Your task to perform on an android device: Show me recent news Image 0: 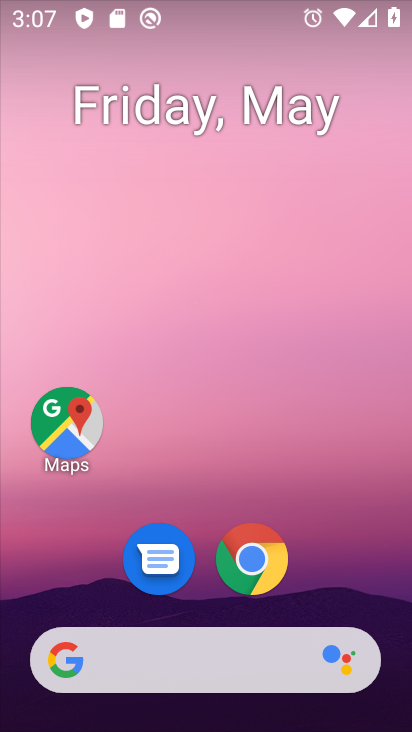
Step 0: drag from (361, 600) to (325, 156)
Your task to perform on an android device: Show me recent news Image 1: 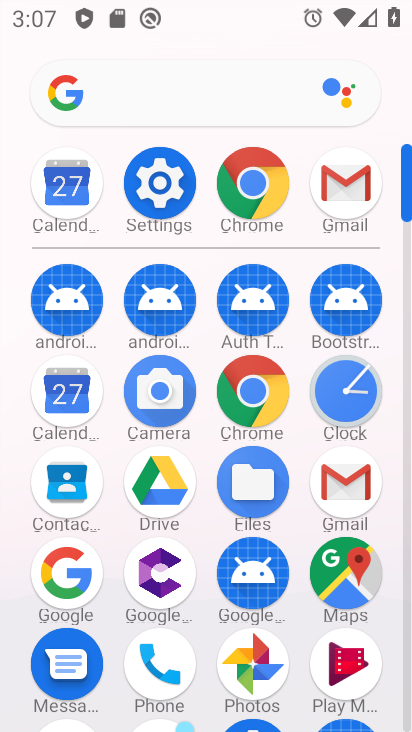
Step 1: click (202, 113)
Your task to perform on an android device: Show me recent news Image 2: 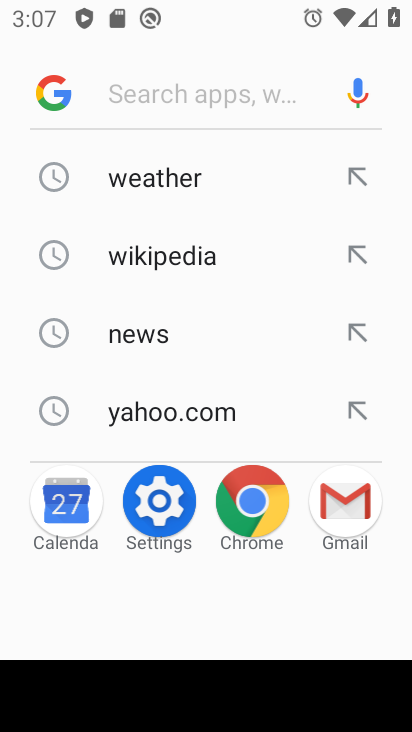
Step 2: click (181, 308)
Your task to perform on an android device: Show me recent news Image 3: 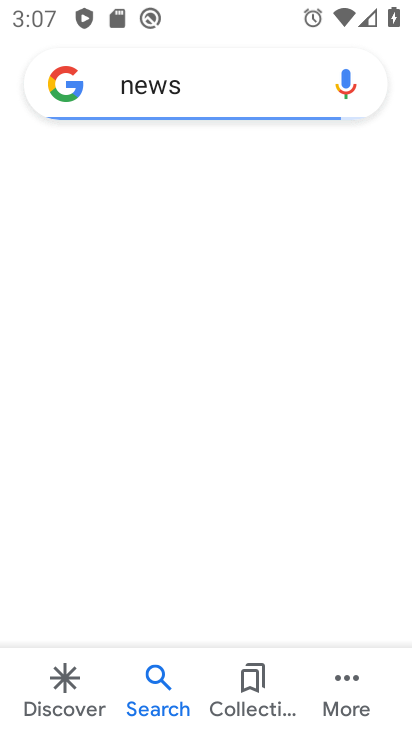
Step 3: task complete